Your task to perform on an android device: delete location history Image 0: 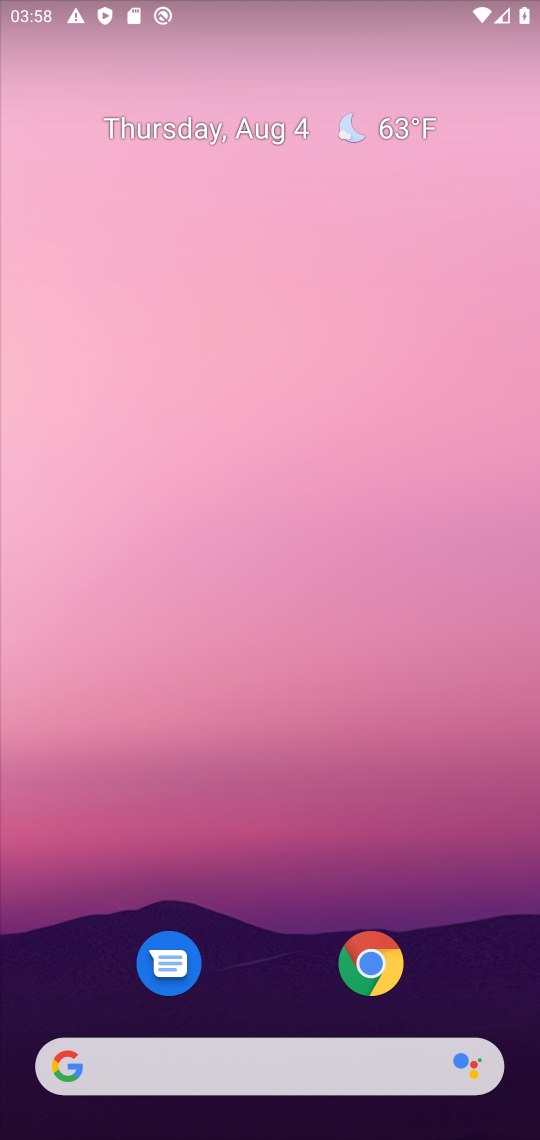
Step 0: drag from (265, 990) to (189, 3)
Your task to perform on an android device: delete location history Image 1: 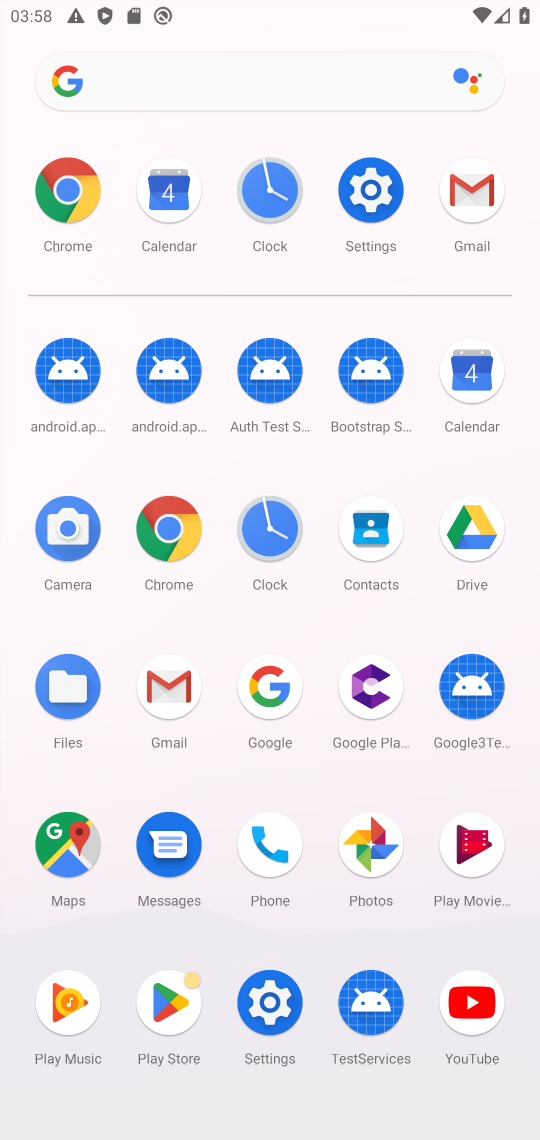
Step 1: click (62, 851)
Your task to perform on an android device: delete location history Image 2: 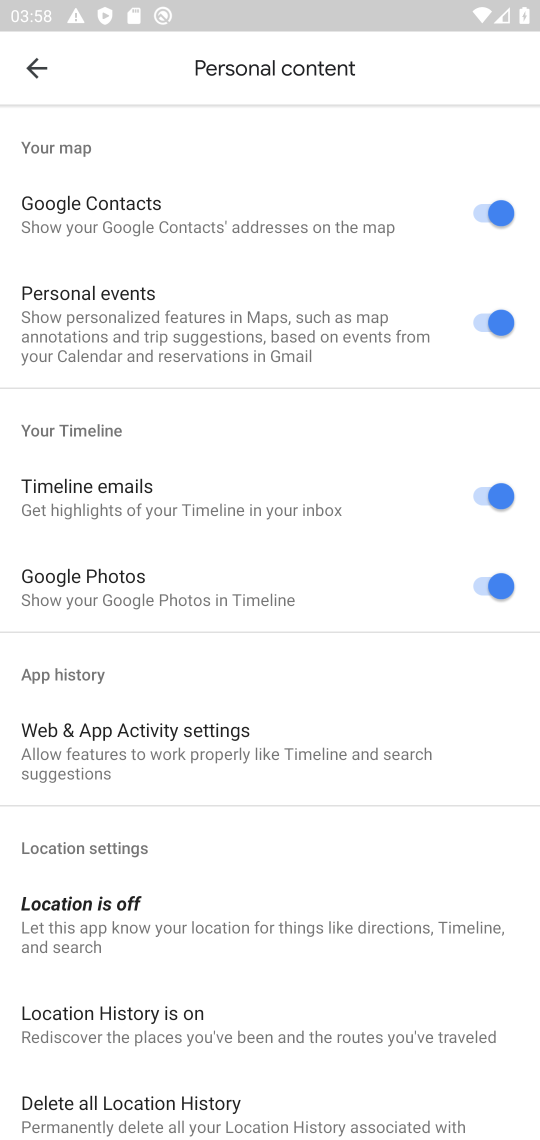
Step 2: click (176, 1097)
Your task to perform on an android device: delete location history Image 3: 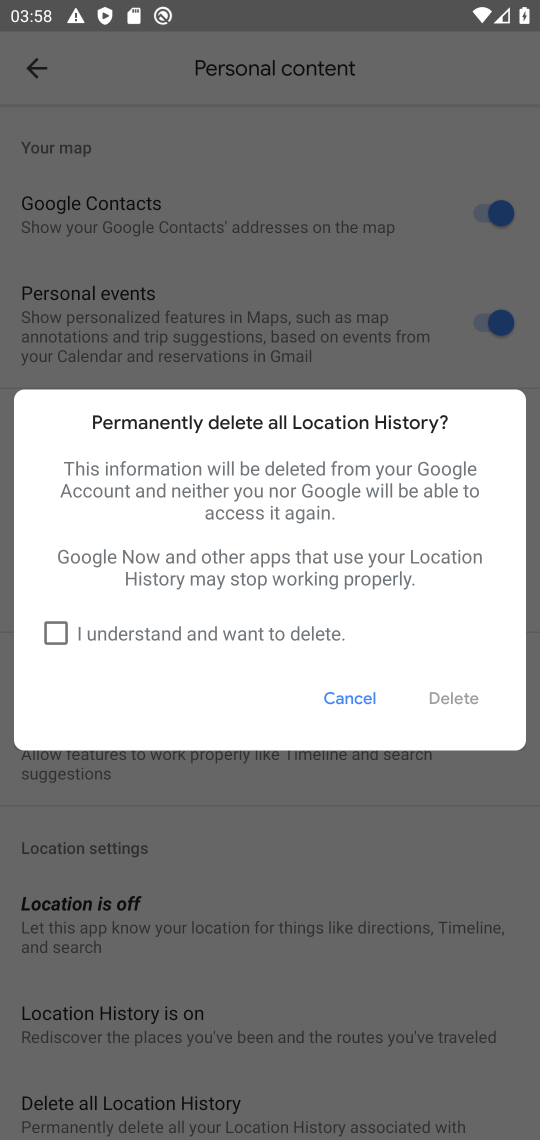
Step 3: click (40, 634)
Your task to perform on an android device: delete location history Image 4: 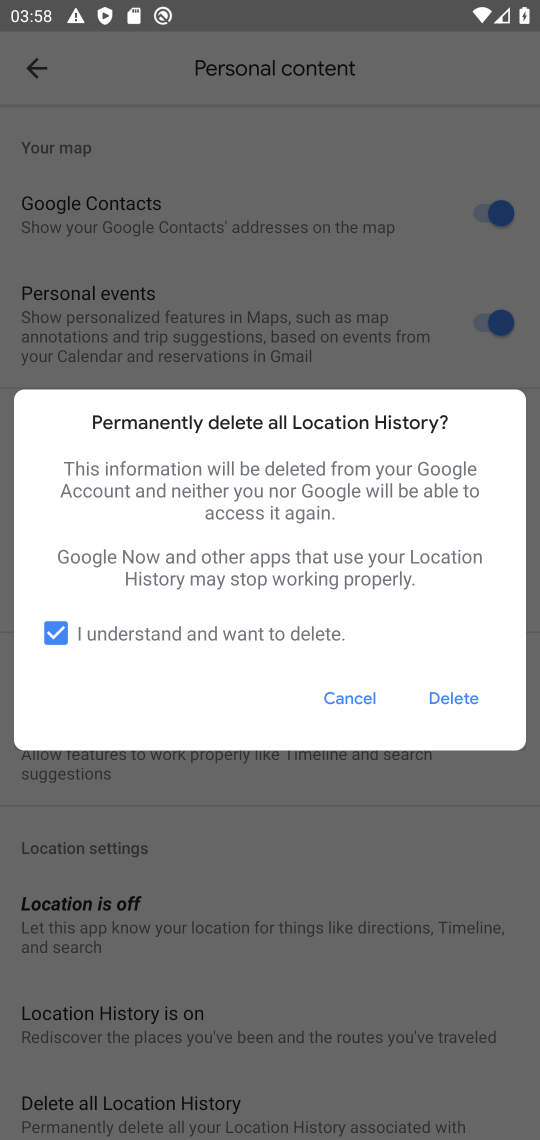
Step 4: click (432, 702)
Your task to perform on an android device: delete location history Image 5: 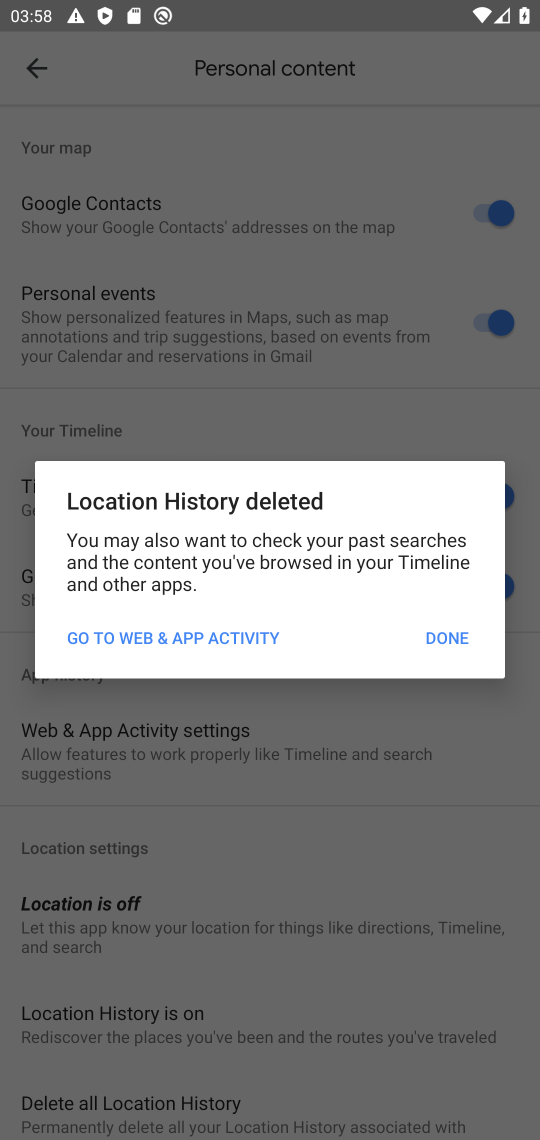
Step 5: click (435, 636)
Your task to perform on an android device: delete location history Image 6: 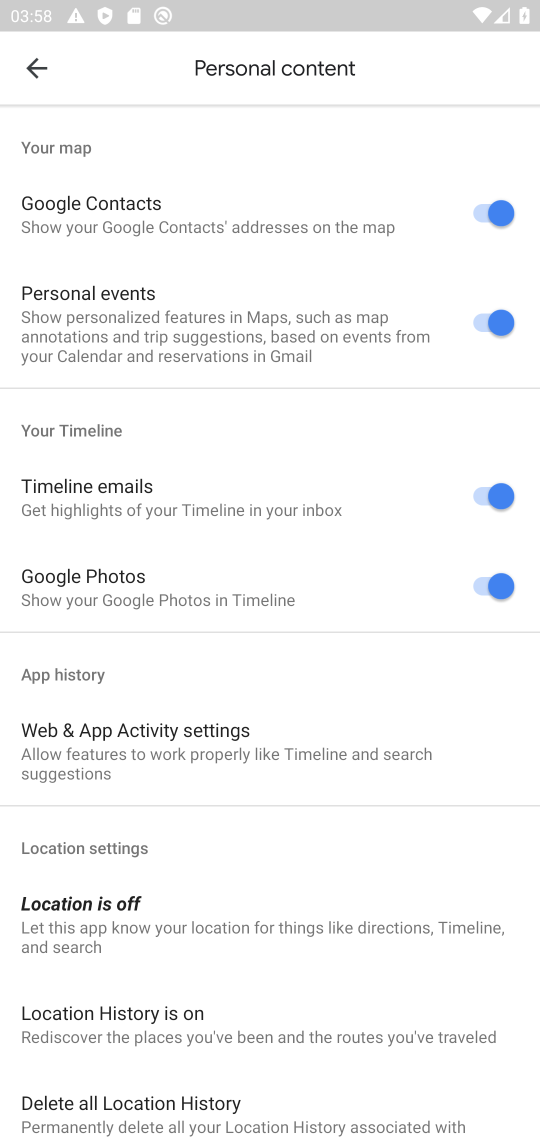
Step 6: task complete